Your task to perform on an android device: Open battery settings Image 0: 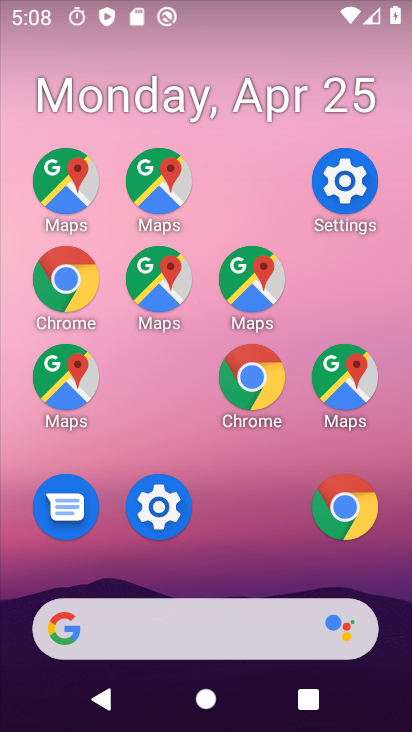
Step 0: drag from (295, 715) to (334, 261)
Your task to perform on an android device: Open battery settings Image 1: 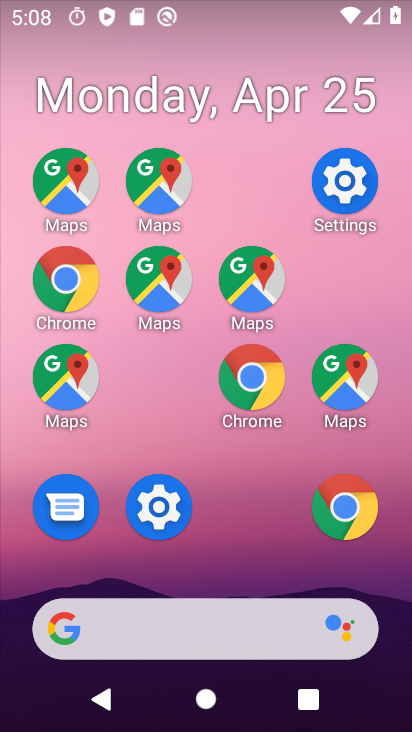
Step 1: drag from (246, 692) to (231, 277)
Your task to perform on an android device: Open battery settings Image 2: 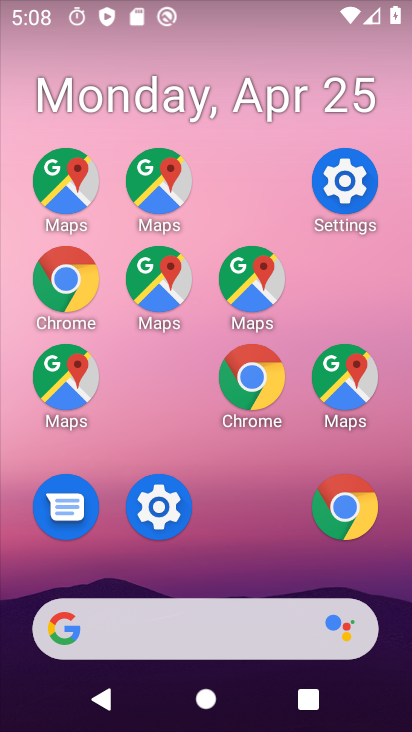
Step 2: drag from (236, 327) to (155, 43)
Your task to perform on an android device: Open battery settings Image 3: 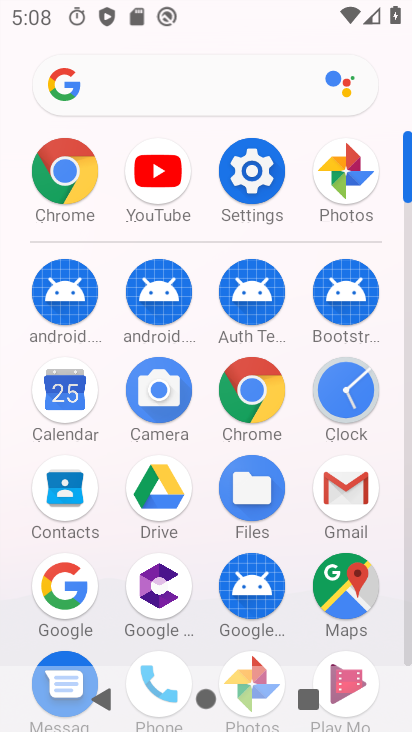
Step 3: click (243, 160)
Your task to perform on an android device: Open battery settings Image 4: 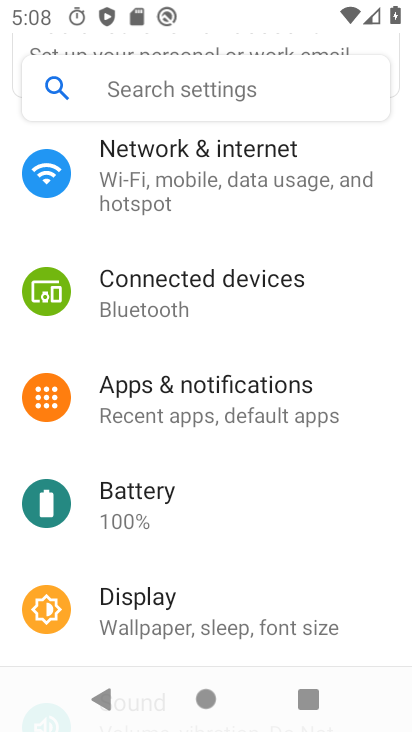
Step 4: drag from (227, 224) to (284, 597)
Your task to perform on an android device: Open battery settings Image 5: 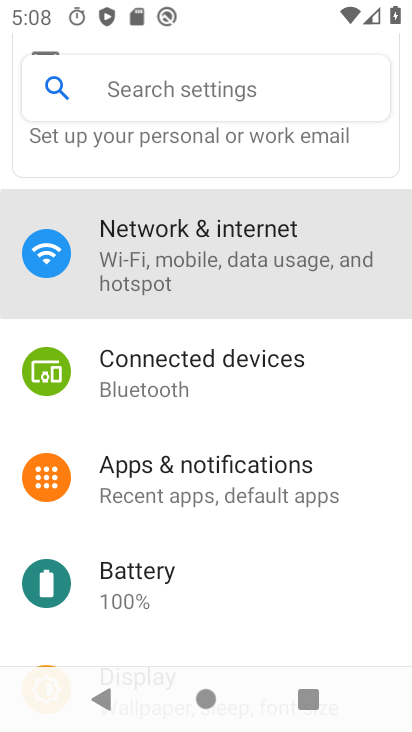
Step 5: drag from (238, 201) to (283, 583)
Your task to perform on an android device: Open battery settings Image 6: 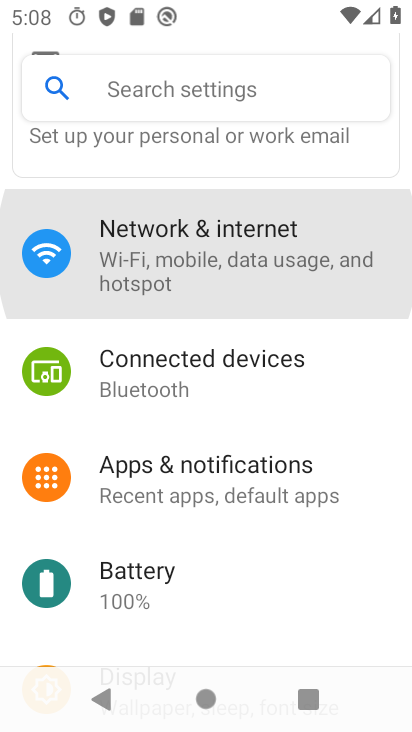
Step 6: drag from (230, 403) to (250, 614)
Your task to perform on an android device: Open battery settings Image 7: 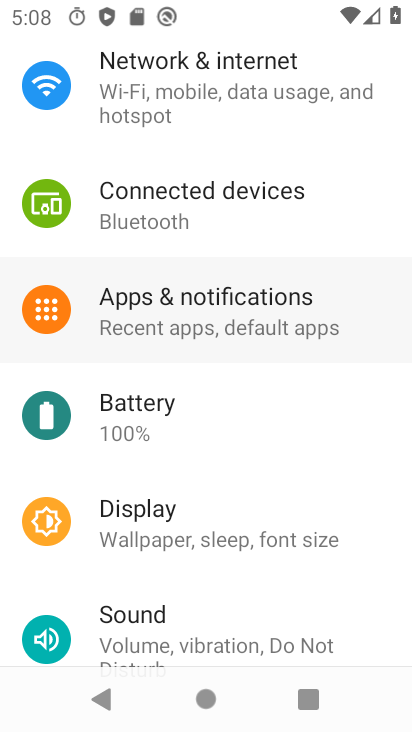
Step 7: drag from (184, 287) to (270, 651)
Your task to perform on an android device: Open battery settings Image 8: 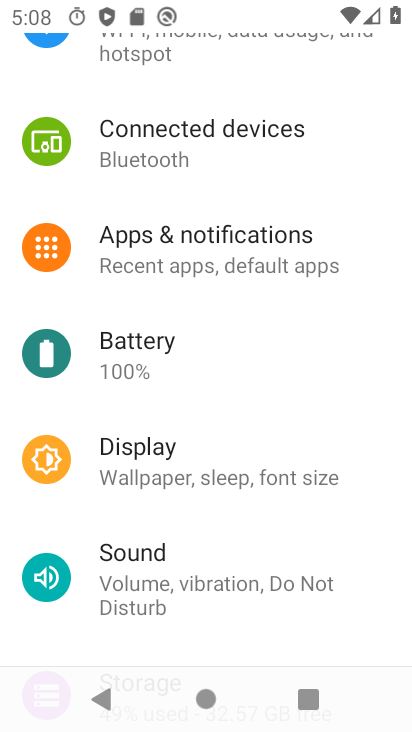
Step 8: drag from (186, 212) to (197, 488)
Your task to perform on an android device: Open battery settings Image 9: 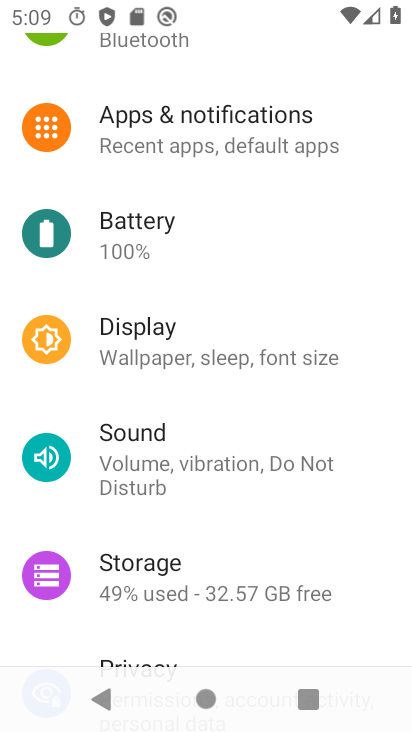
Step 9: click (137, 232)
Your task to perform on an android device: Open battery settings Image 10: 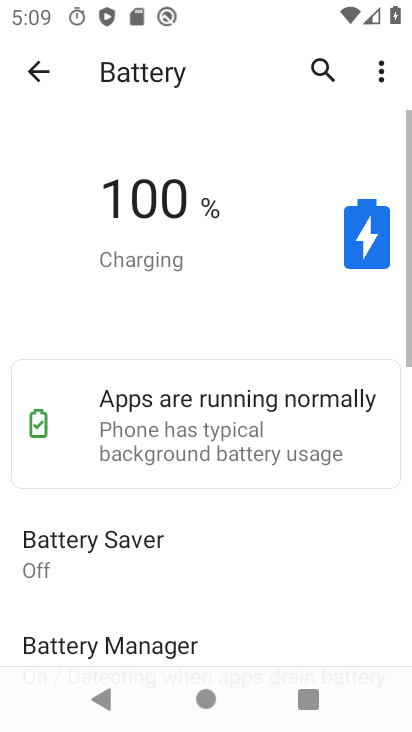
Step 10: click (136, 233)
Your task to perform on an android device: Open battery settings Image 11: 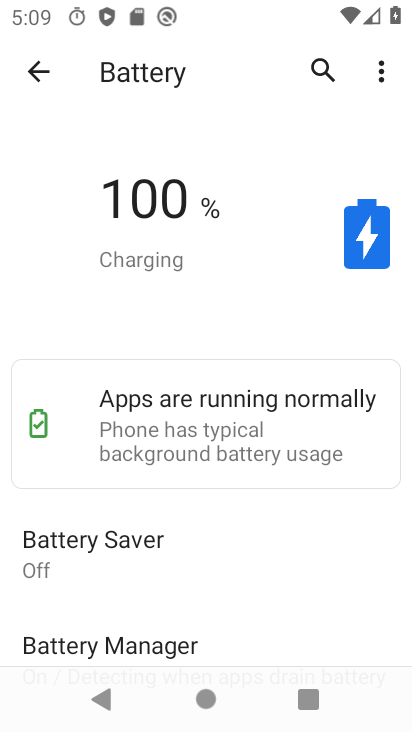
Step 11: task complete